Your task to perform on an android device: What's the news in Taiwan? Image 0: 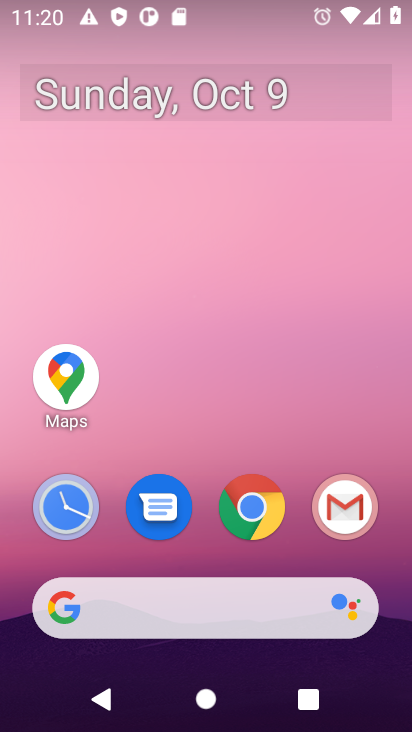
Step 0: press home button
Your task to perform on an android device: What's the news in Taiwan? Image 1: 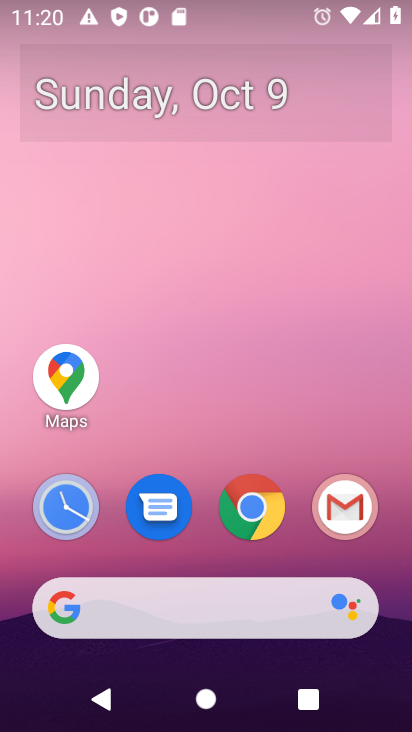
Step 1: click (234, 606)
Your task to perform on an android device: What's the news in Taiwan? Image 2: 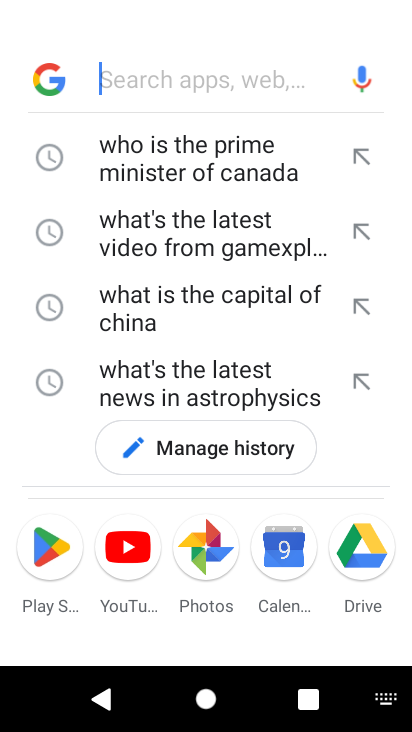
Step 2: type "What's the news in Taiwan"
Your task to perform on an android device: What's the news in Taiwan? Image 3: 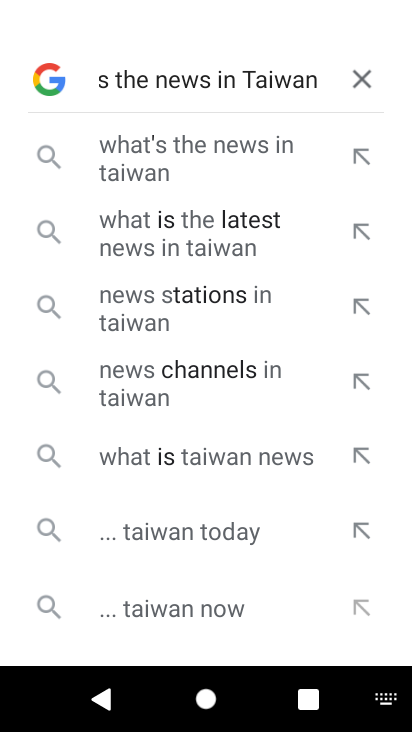
Step 3: press enter
Your task to perform on an android device: What's the news in Taiwan? Image 4: 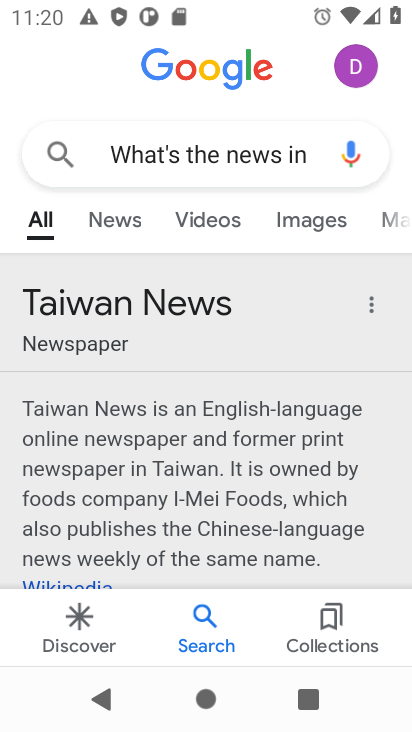
Step 4: drag from (263, 515) to (283, 292)
Your task to perform on an android device: What's the news in Taiwan? Image 5: 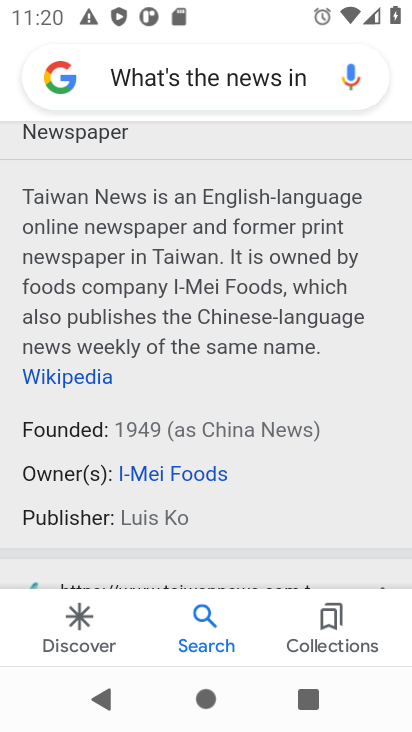
Step 5: drag from (290, 493) to (281, 278)
Your task to perform on an android device: What's the news in Taiwan? Image 6: 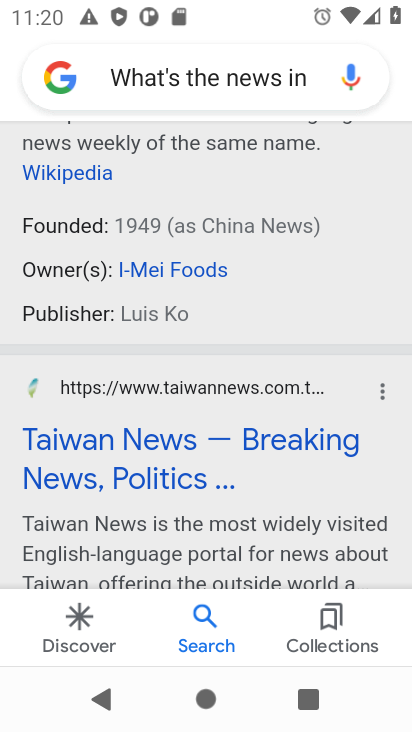
Step 6: click (199, 465)
Your task to perform on an android device: What's the news in Taiwan? Image 7: 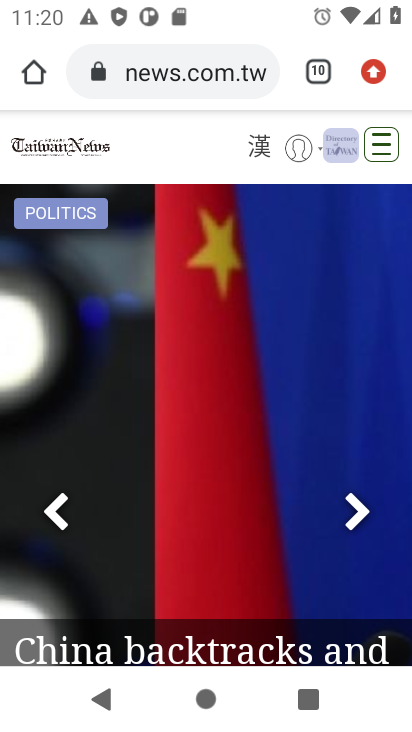
Step 7: task complete